Your task to perform on an android device: change your default location settings in chrome Image 0: 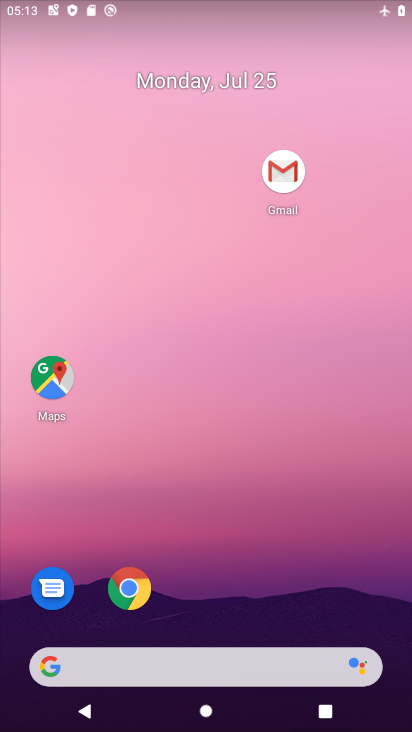
Step 0: drag from (292, 522) to (157, 1)
Your task to perform on an android device: change your default location settings in chrome Image 1: 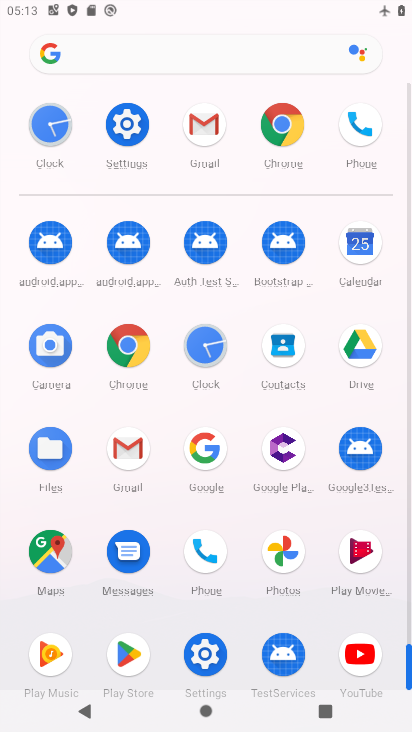
Step 1: click (130, 347)
Your task to perform on an android device: change your default location settings in chrome Image 2: 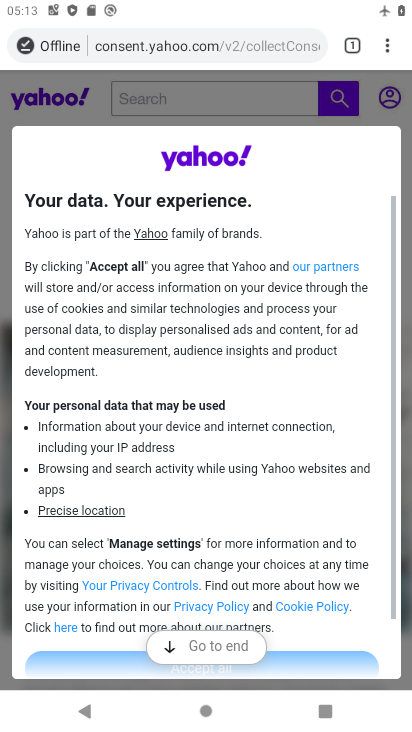
Step 2: drag from (386, 40) to (231, 516)
Your task to perform on an android device: change your default location settings in chrome Image 3: 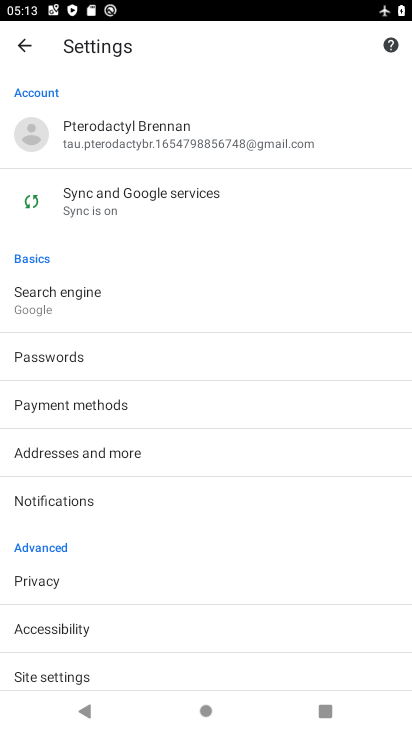
Step 3: drag from (158, 628) to (173, 267)
Your task to perform on an android device: change your default location settings in chrome Image 4: 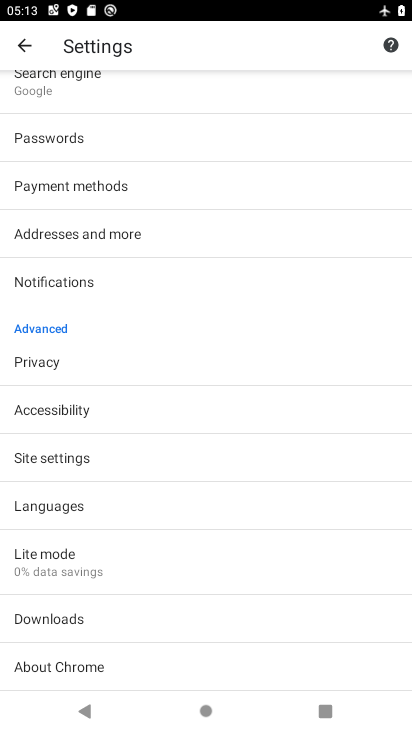
Step 4: click (78, 458)
Your task to perform on an android device: change your default location settings in chrome Image 5: 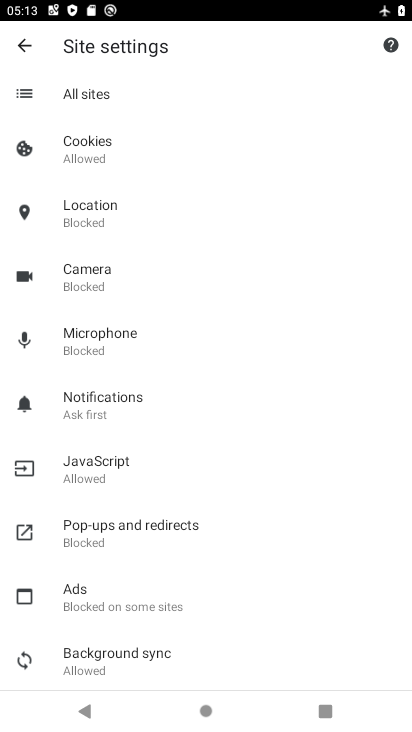
Step 5: drag from (263, 553) to (248, 306)
Your task to perform on an android device: change your default location settings in chrome Image 6: 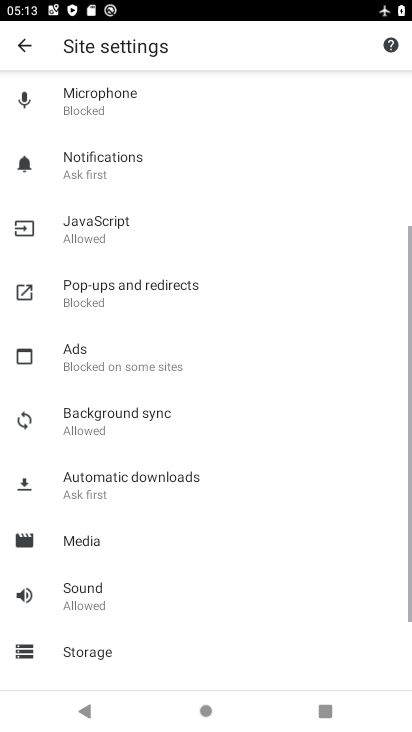
Step 6: drag from (191, 146) to (226, 534)
Your task to perform on an android device: change your default location settings in chrome Image 7: 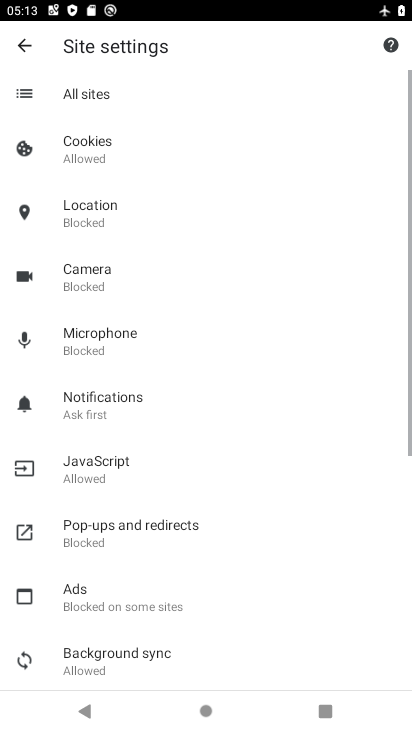
Step 7: click (108, 211)
Your task to perform on an android device: change your default location settings in chrome Image 8: 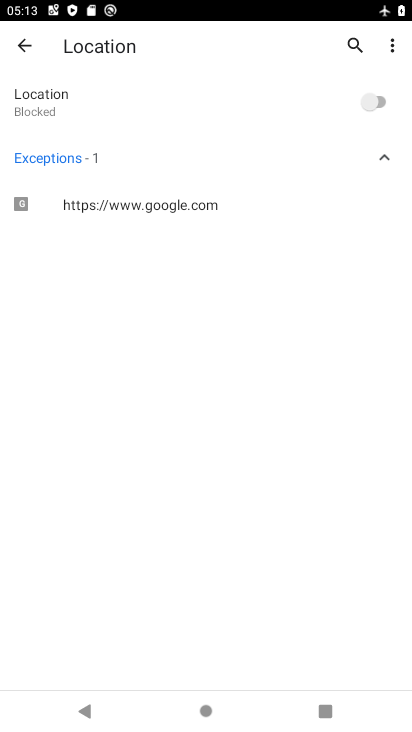
Step 8: click (381, 101)
Your task to perform on an android device: change your default location settings in chrome Image 9: 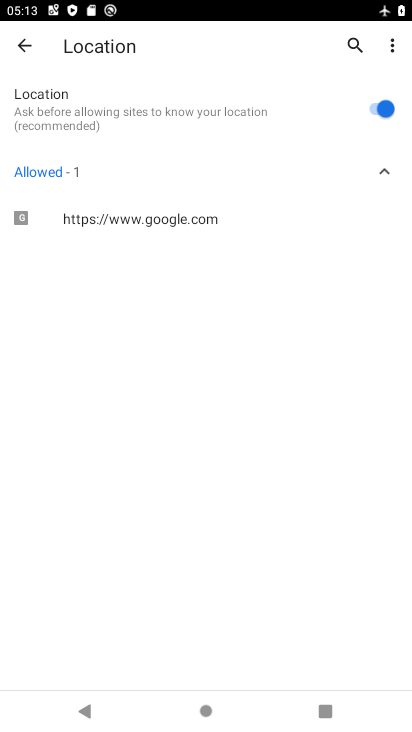
Step 9: task complete